Your task to perform on an android device: Open the calendar and show me this week's events? Image 0: 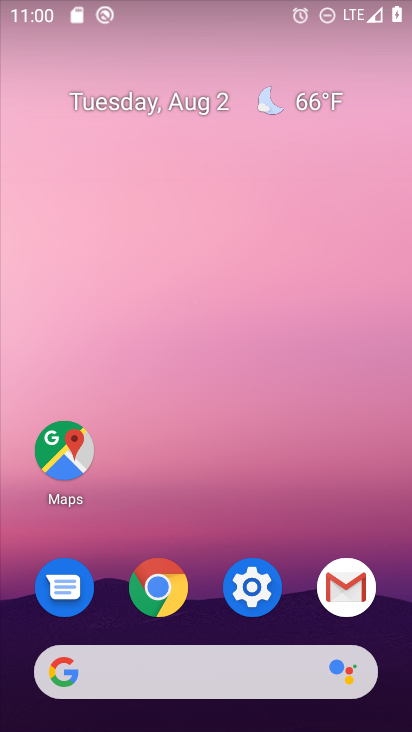
Step 0: press home button
Your task to perform on an android device: Open the calendar and show me this week's events? Image 1: 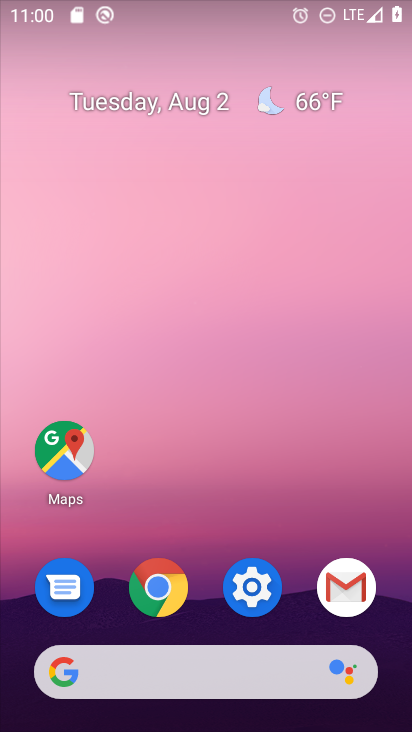
Step 1: drag from (238, 323) to (227, 93)
Your task to perform on an android device: Open the calendar and show me this week's events? Image 2: 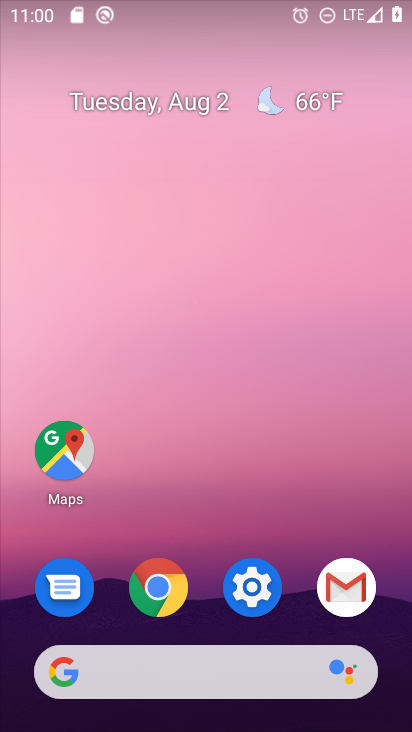
Step 2: drag from (153, 707) to (186, 82)
Your task to perform on an android device: Open the calendar and show me this week's events? Image 3: 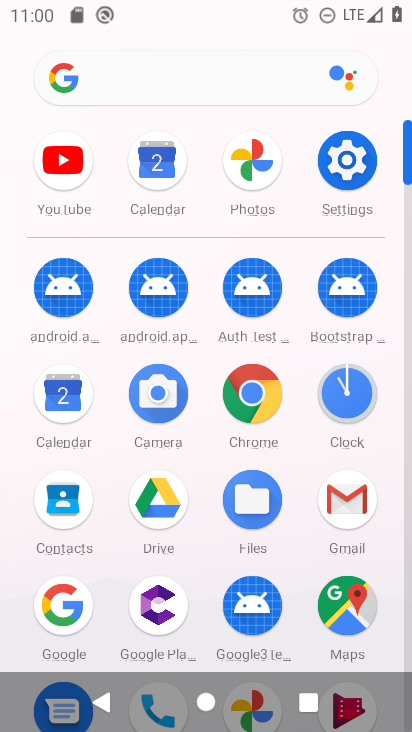
Step 3: click (53, 407)
Your task to perform on an android device: Open the calendar and show me this week's events? Image 4: 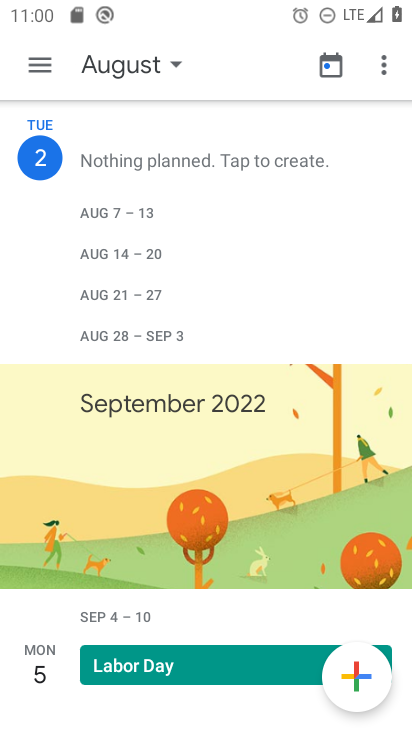
Step 4: click (52, 55)
Your task to perform on an android device: Open the calendar and show me this week's events? Image 5: 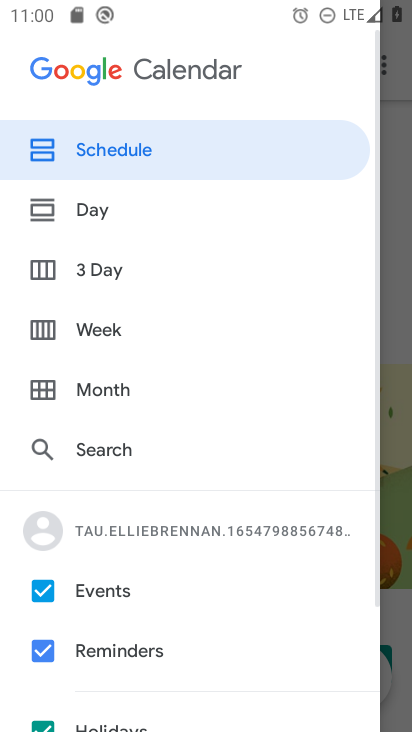
Step 5: click (75, 395)
Your task to perform on an android device: Open the calendar and show me this week's events? Image 6: 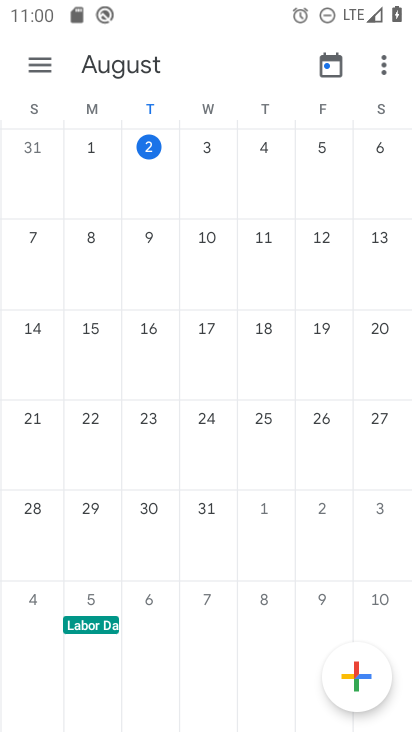
Step 6: click (145, 147)
Your task to perform on an android device: Open the calendar and show me this week's events? Image 7: 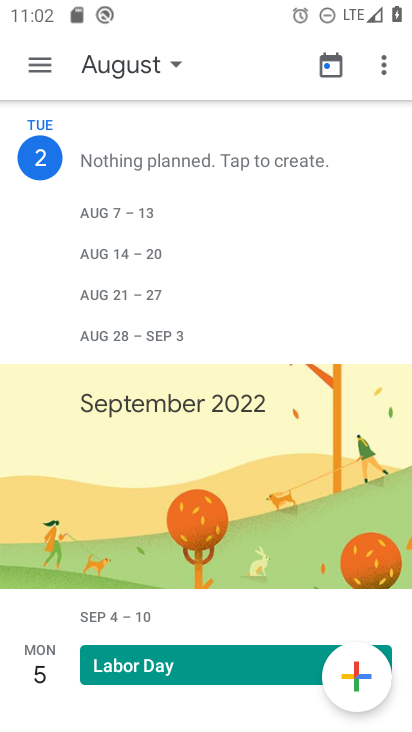
Step 7: task complete